Your task to perform on an android device: Do I have any events this weekend? Image 0: 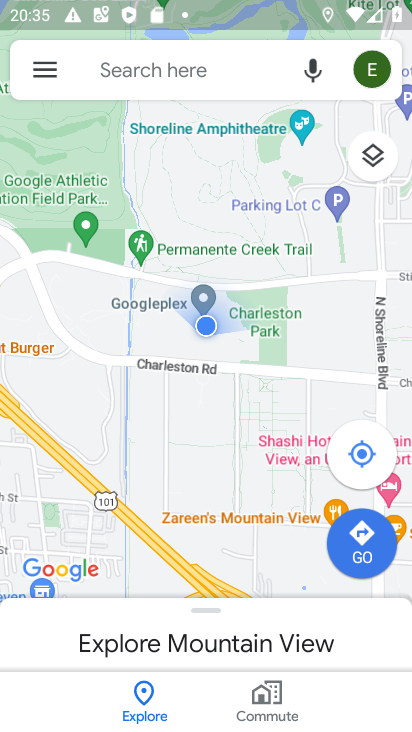
Step 0: press back button
Your task to perform on an android device: Do I have any events this weekend? Image 1: 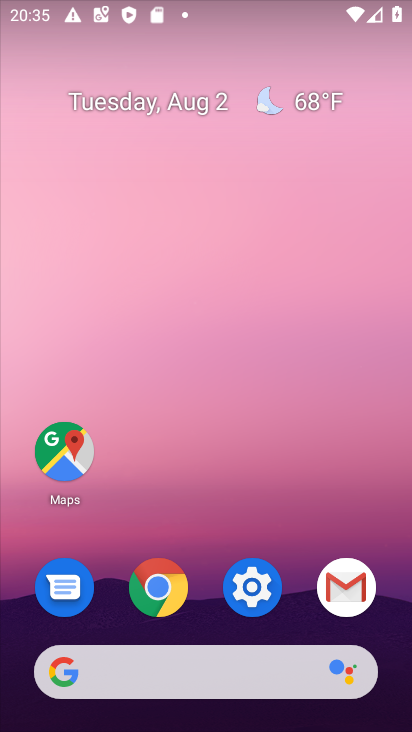
Step 1: drag from (243, 661) to (84, 31)
Your task to perform on an android device: Do I have any events this weekend? Image 2: 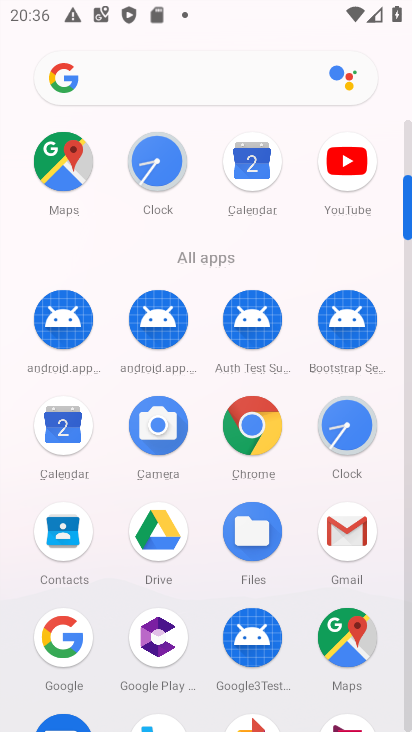
Step 2: click (243, 161)
Your task to perform on an android device: Do I have any events this weekend? Image 3: 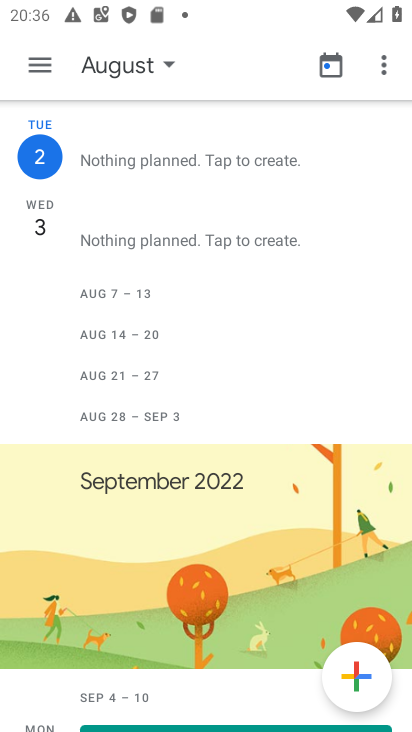
Step 3: click (37, 67)
Your task to perform on an android device: Do I have any events this weekend? Image 4: 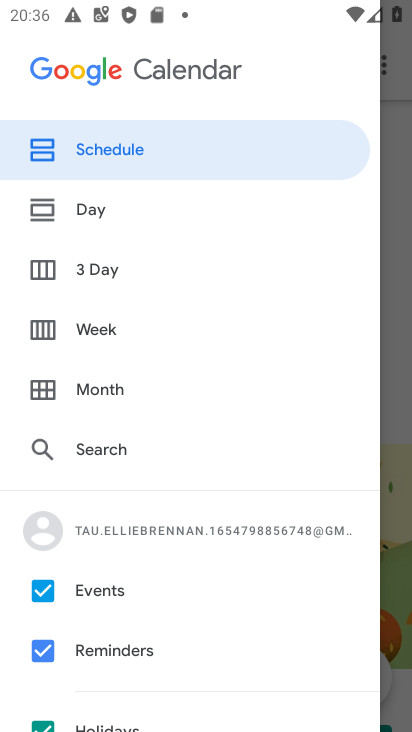
Step 4: click (114, 386)
Your task to perform on an android device: Do I have any events this weekend? Image 5: 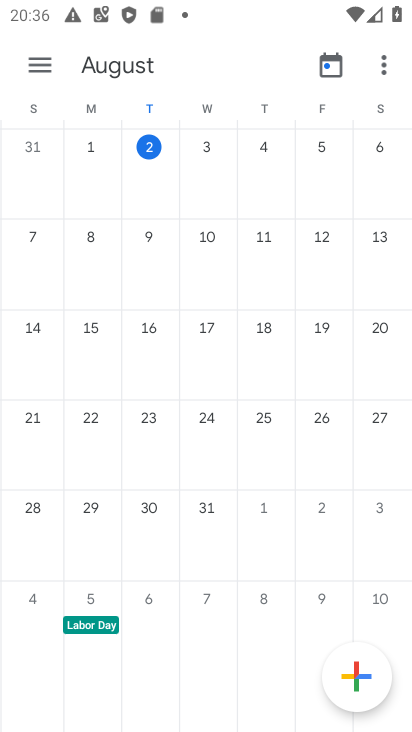
Step 5: click (149, 163)
Your task to perform on an android device: Do I have any events this weekend? Image 6: 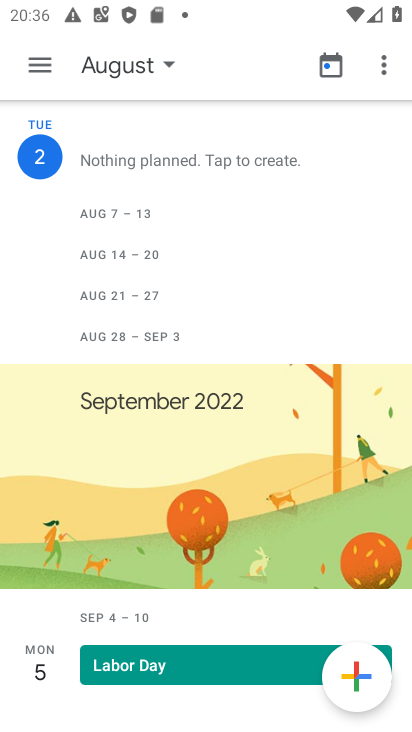
Step 6: task complete